Your task to perform on an android device: Search for Mexican restaurants on Maps Image 0: 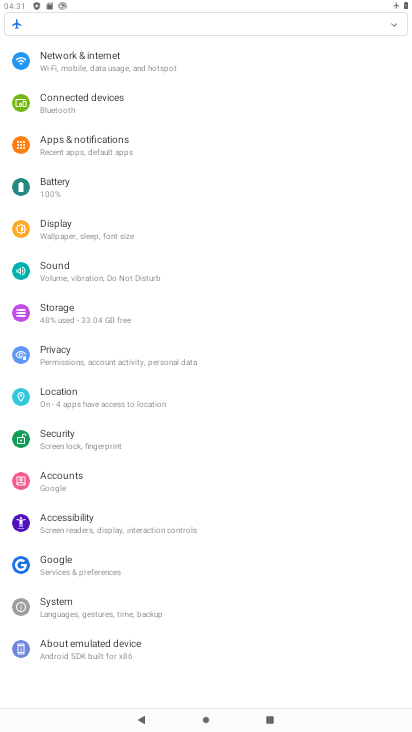
Step 0: press home button
Your task to perform on an android device: Search for Mexican restaurants on Maps Image 1: 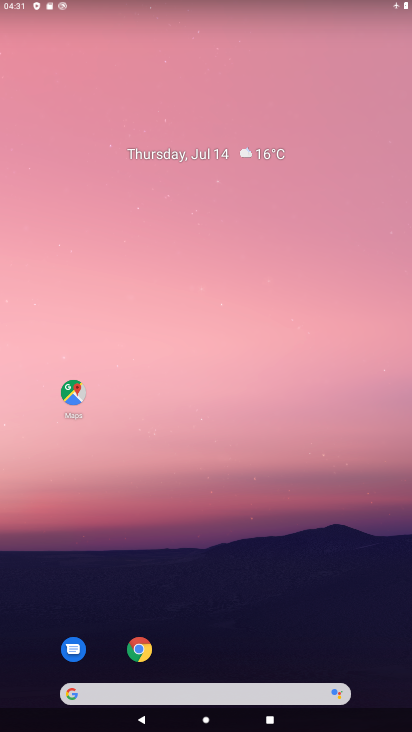
Step 1: drag from (226, 553) to (191, 0)
Your task to perform on an android device: Search for Mexican restaurants on Maps Image 2: 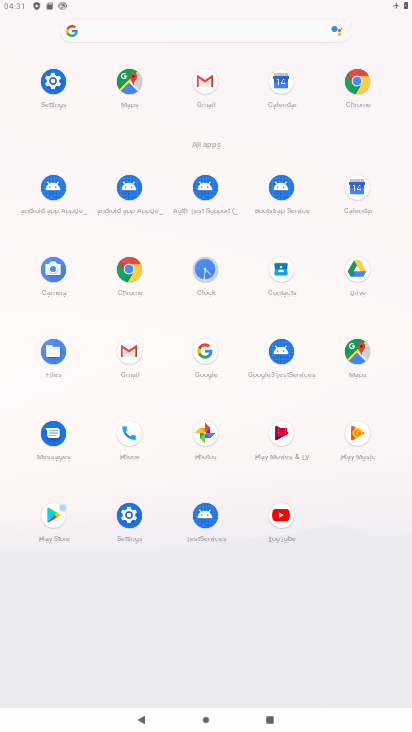
Step 2: click (354, 352)
Your task to perform on an android device: Search for Mexican restaurants on Maps Image 3: 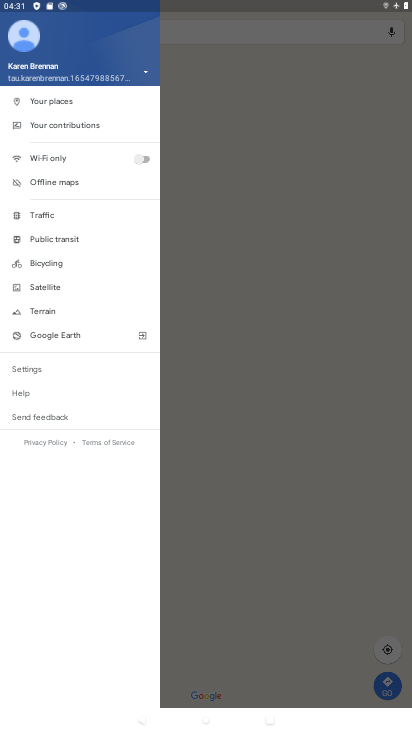
Step 3: press back button
Your task to perform on an android device: Search for Mexican restaurants on Maps Image 4: 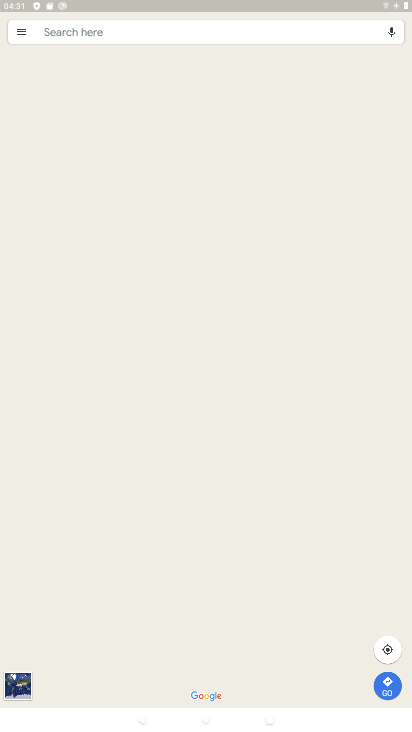
Step 4: click (154, 29)
Your task to perform on an android device: Search for Mexican restaurants on Maps Image 5: 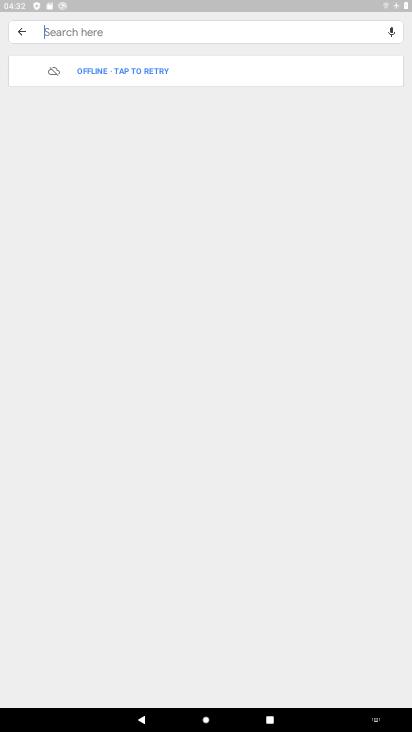
Step 5: type " Mexican restaurants"
Your task to perform on an android device: Search for Mexican restaurants on Maps Image 6: 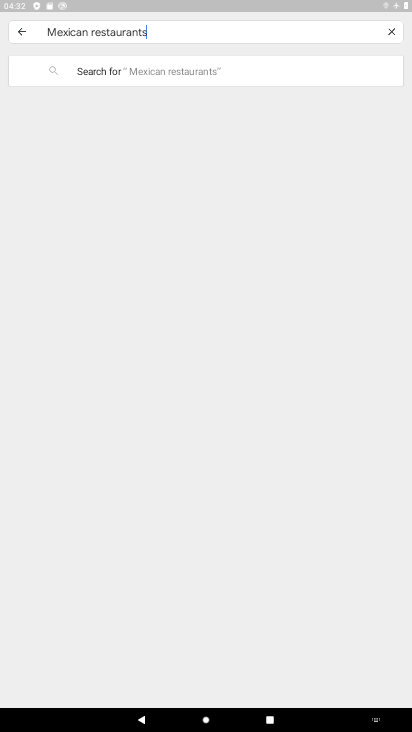
Step 6: press enter
Your task to perform on an android device: Search for Mexican restaurants on Maps Image 7: 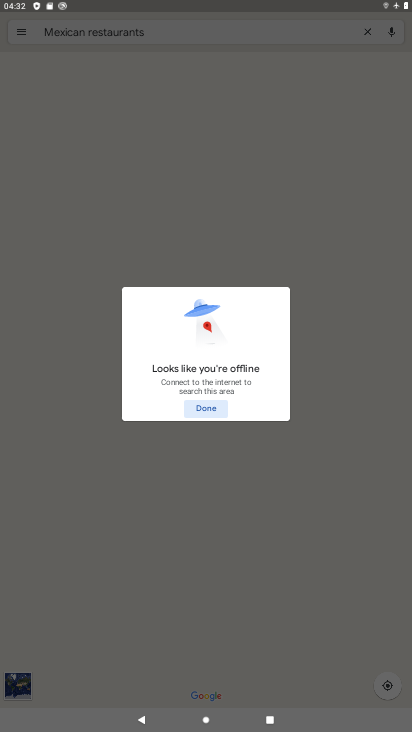
Step 7: click (210, 402)
Your task to perform on an android device: Search for Mexican restaurants on Maps Image 8: 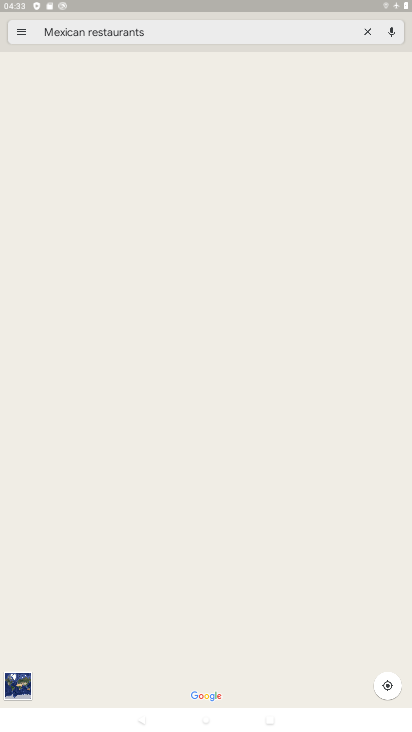
Step 8: press enter
Your task to perform on an android device: Search for Mexican restaurants on Maps Image 9: 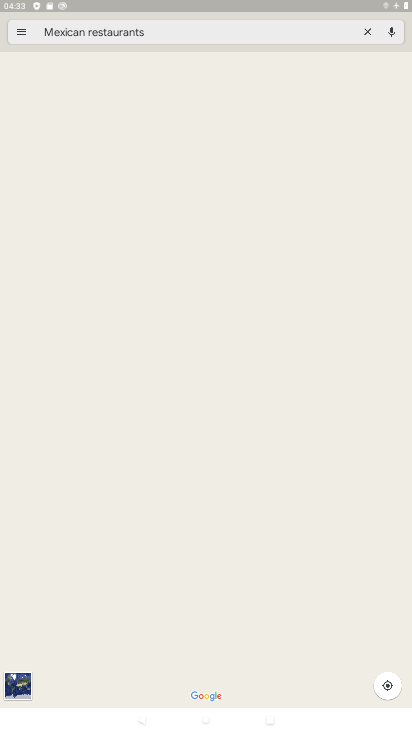
Step 9: click (274, 26)
Your task to perform on an android device: Search for Mexican restaurants on Maps Image 10: 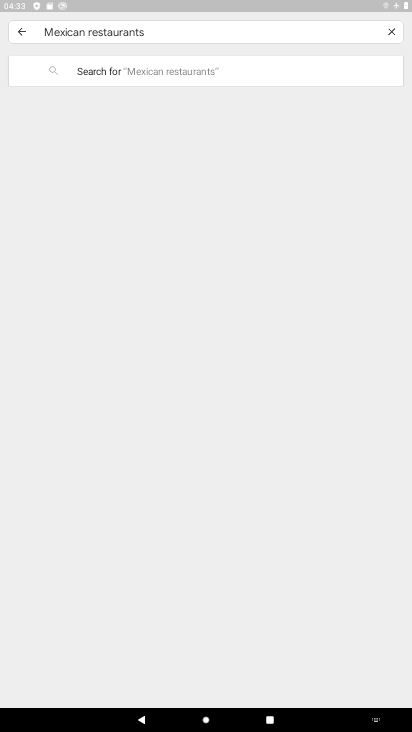
Step 10: press enter
Your task to perform on an android device: Search for Mexican restaurants on Maps Image 11: 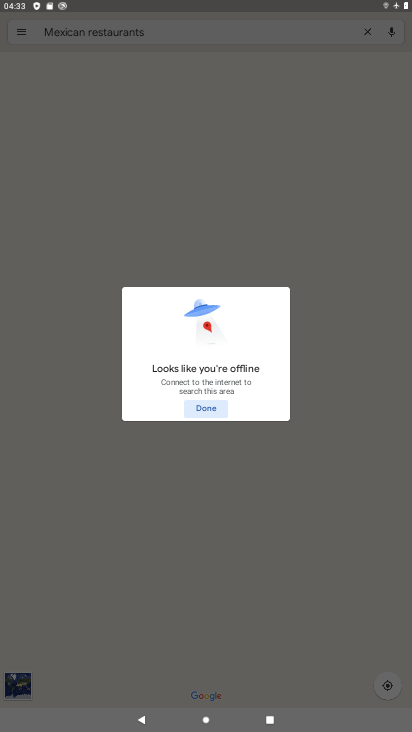
Step 11: task complete